Your task to perform on an android device: Open Google Image 0: 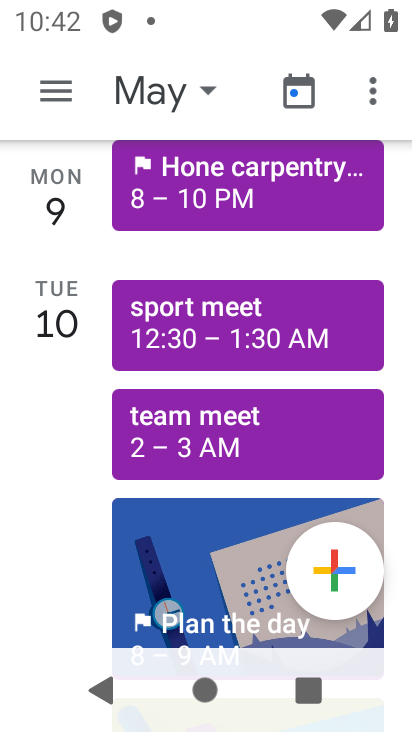
Step 0: press home button
Your task to perform on an android device: Open Google Image 1: 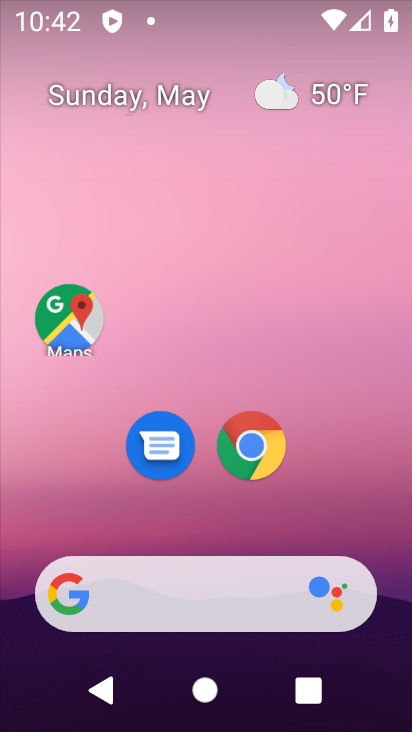
Step 1: click (186, 589)
Your task to perform on an android device: Open Google Image 2: 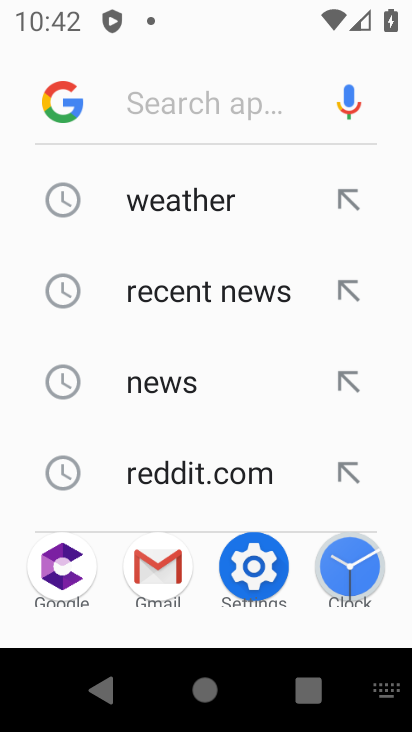
Step 2: click (77, 103)
Your task to perform on an android device: Open Google Image 3: 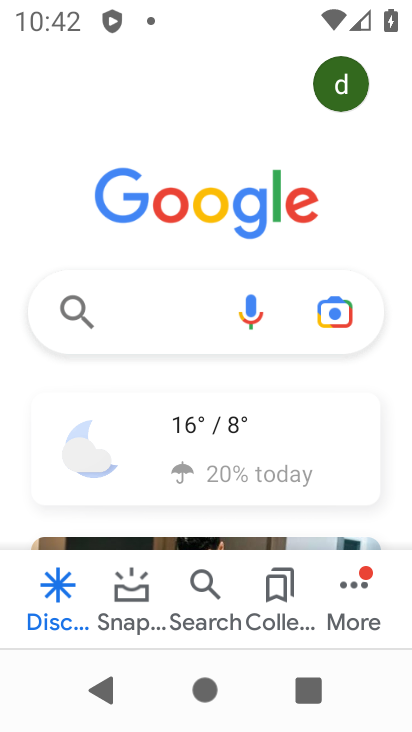
Step 3: task complete